Your task to perform on an android device: Open Google Chrome and open the bookmarks view Image 0: 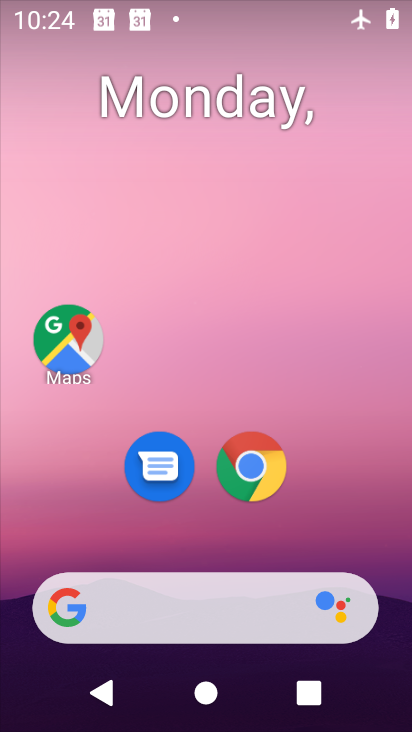
Step 0: drag from (377, 548) to (195, 253)
Your task to perform on an android device: Open Google Chrome and open the bookmarks view Image 1: 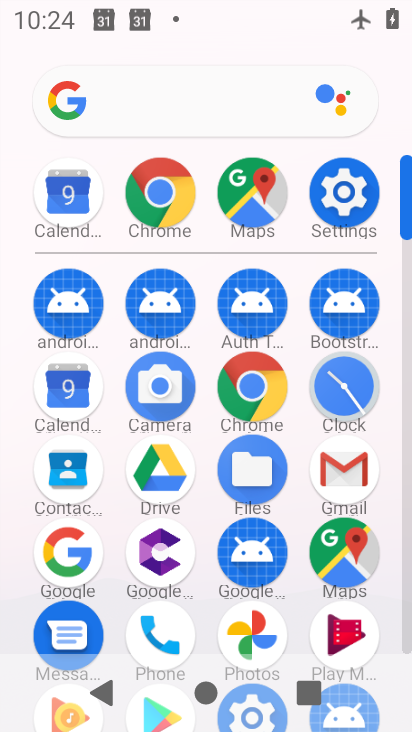
Step 1: click (350, 193)
Your task to perform on an android device: Open Google Chrome and open the bookmarks view Image 2: 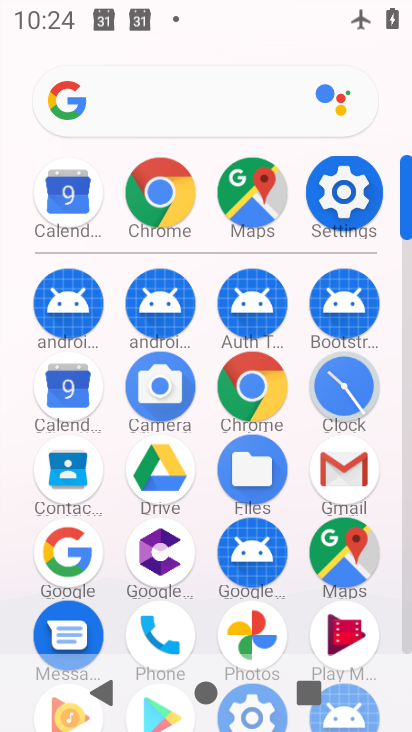
Step 2: click (351, 193)
Your task to perform on an android device: Open Google Chrome and open the bookmarks view Image 3: 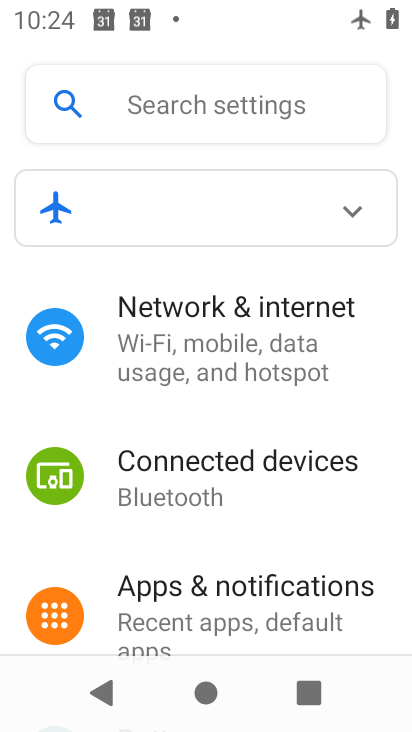
Step 3: click (352, 193)
Your task to perform on an android device: Open Google Chrome and open the bookmarks view Image 4: 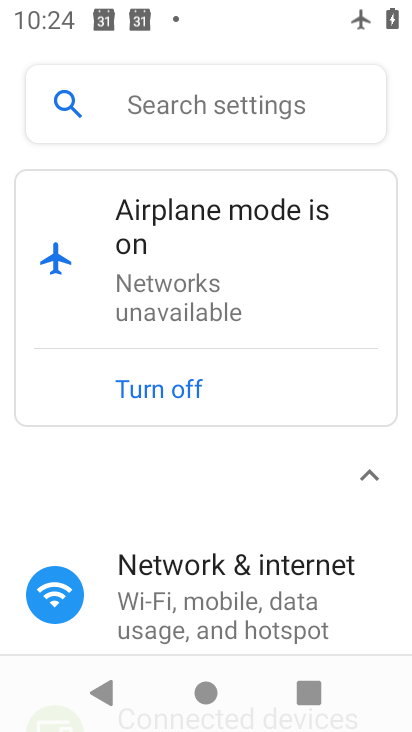
Step 4: click (246, 315)
Your task to perform on an android device: Open Google Chrome and open the bookmarks view Image 5: 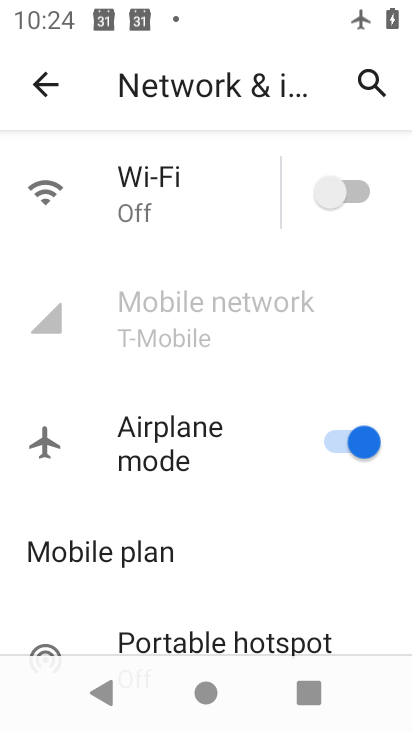
Step 5: click (353, 450)
Your task to perform on an android device: Open Google Chrome and open the bookmarks view Image 6: 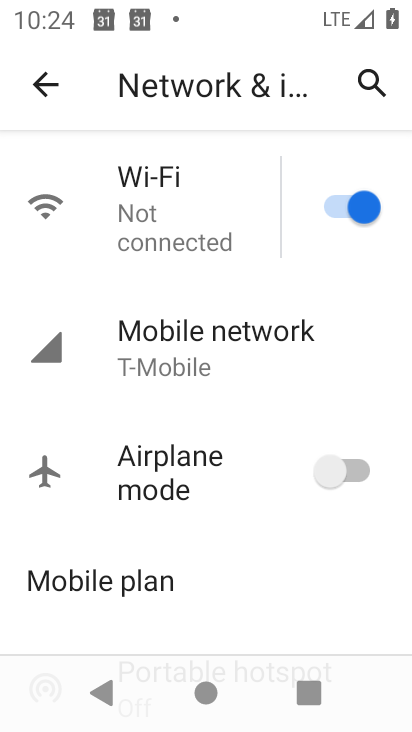
Step 6: press back button
Your task to perform on an android device: Open Google Chrome and open the bookmarks view Image 7: 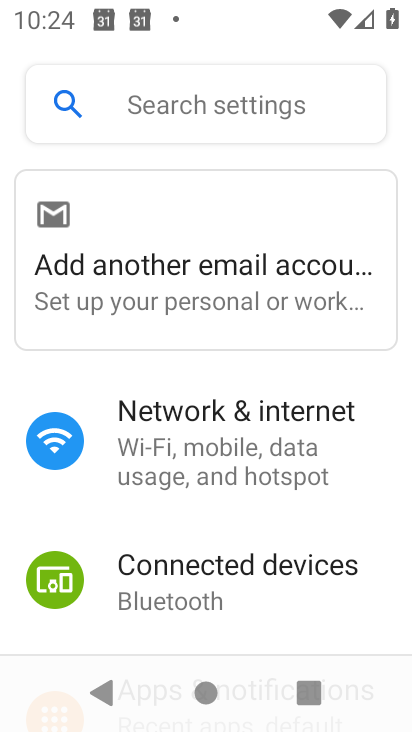
Step 7: press back button
Your task to perform on an android device: Open Google Chrome and open the bookmarks view Image 8: 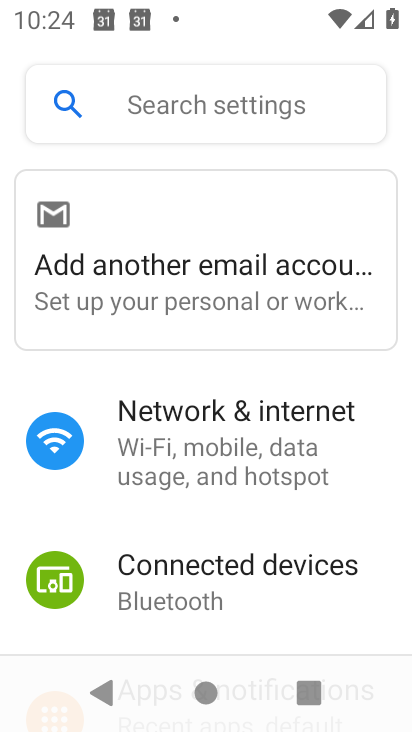
Step 8: press back button
Your task to perform on an android device: Open Google Chrome and open the bookmarks view Image 9: 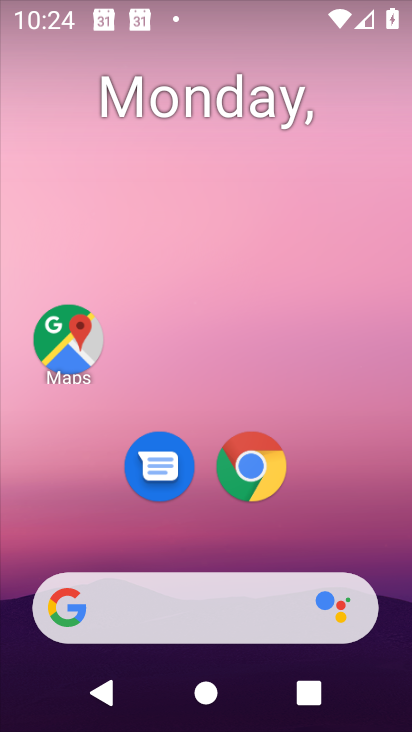
Step 9: drag from (351, 548) to (154, 52)
Your task to perform on an android device: Open Google Chrome and open the bookmarks view Image 10: 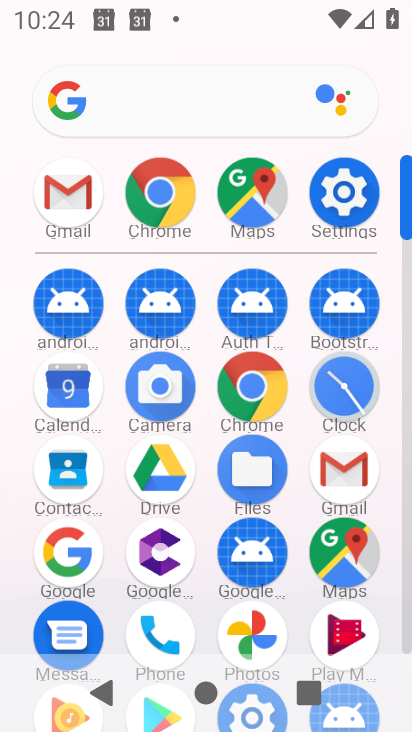
Step 10: click (171, 198)
Your task to perform on an android device: Open Google Chrome and open the bookmarks view Image 11: 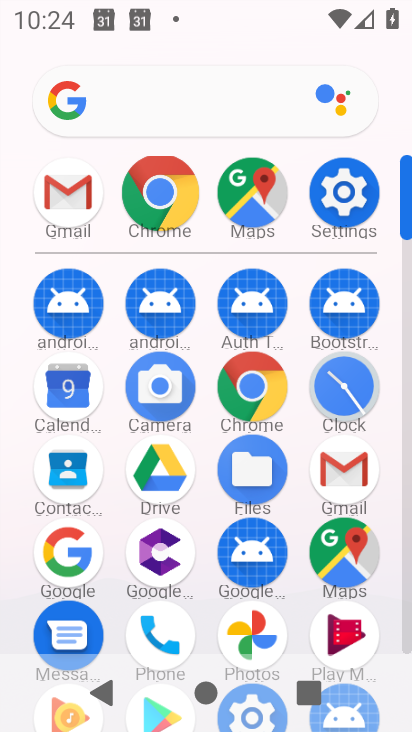
Step 11: click (171, 197)
Your task to perform on an android device: Open Google Chrome and open the bookmarks view Image 12: 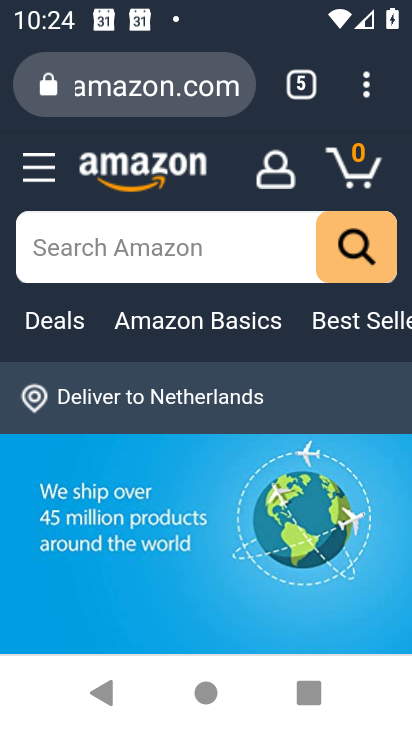
Step 12: drag from (361, 84) to (102, 343)
Your task to perform on an android device: Open Google Chrome and open the bookmarks view Image 13: 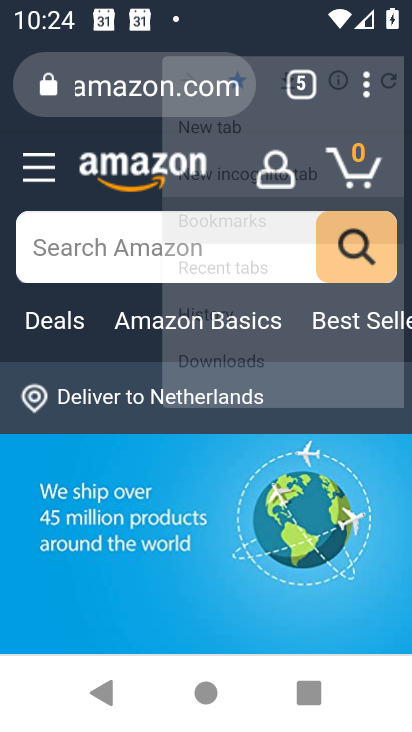
Step 13: click (103, 340)
Your task to perform on an android device: Open Google Chrome and open the bookmarks view Image 14: 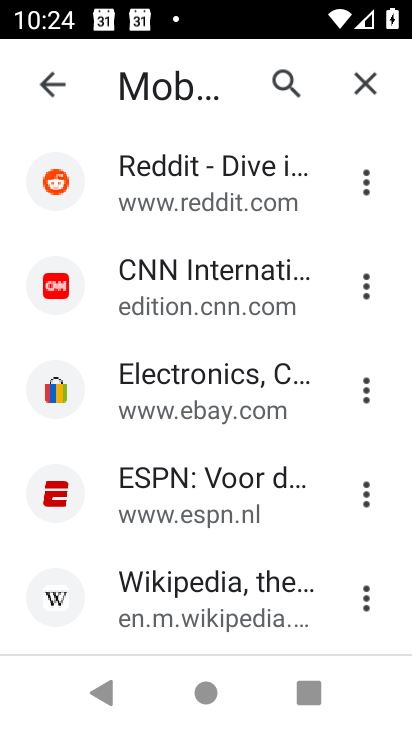
Step 14: task complete